Your task to perform on an android device: toggle improve location accuracy Image 0: 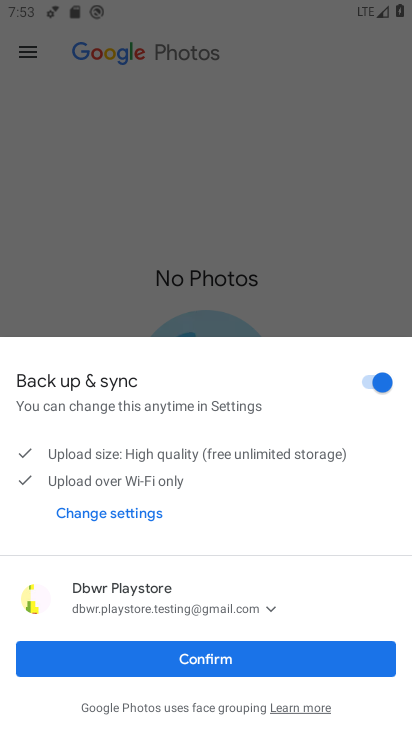
Step 0: press home button
Your task to perform on an android device: toggle improve location accuracy Image 1: 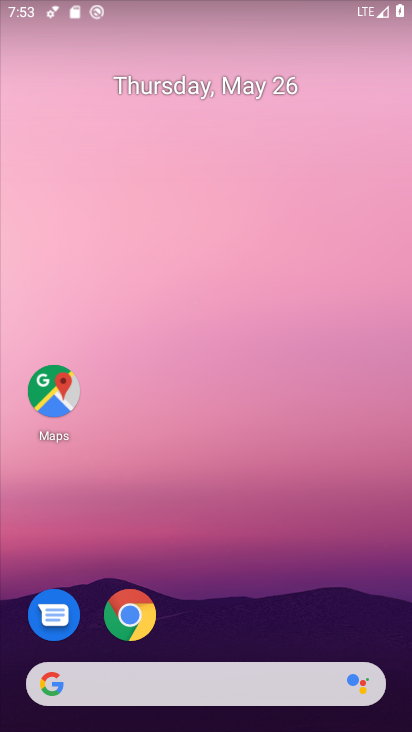
Step 1: drag from (228, 636) to (250, 310)
Your task to perform on an android device: toggle improve location accuracy Image 2: 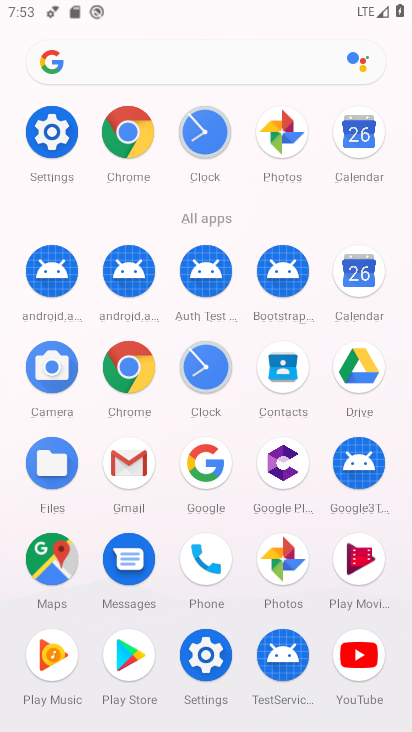
Step 2: click (46, 124)
Your task to perform on an android device: toggle improve location accuracy Image 3: 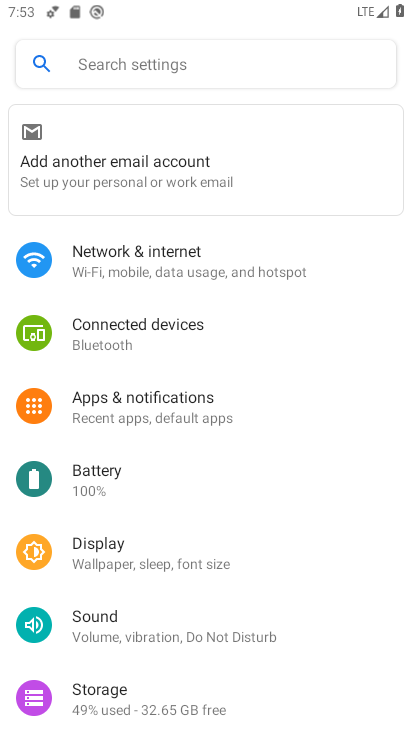
Step 3: drag from (199, 598) to (237, 263)
Your task to perform on an android device: toggle improve location accuracy Image 4: 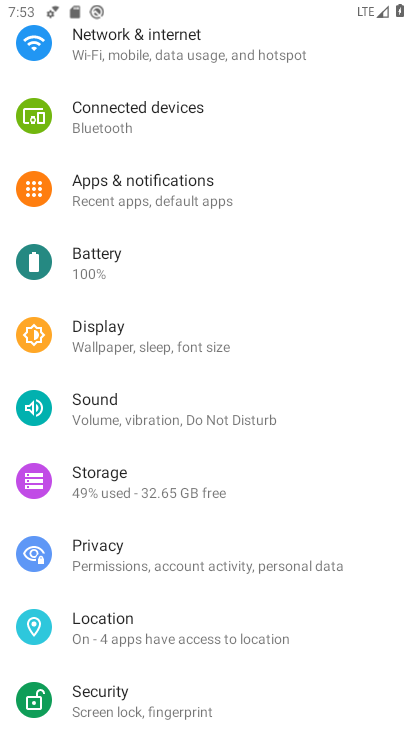
Step 4: click (151, 617)
Your task to perform on an android device: toggle improve location accuracy Image 5: 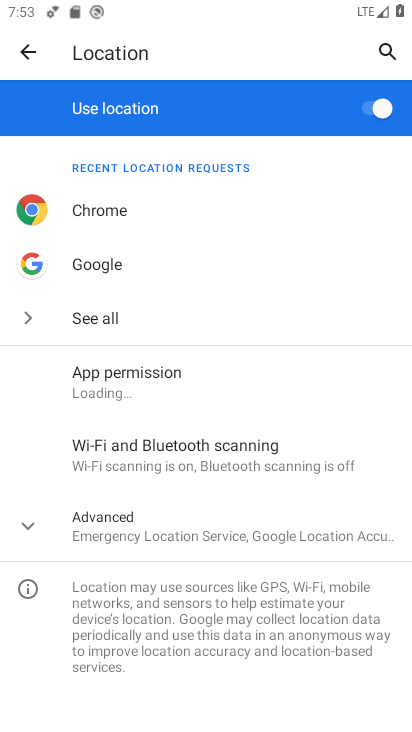
Step 5: click (122, 537)
Your task to perform on an android device: toggle improve location accuracy Image 6: 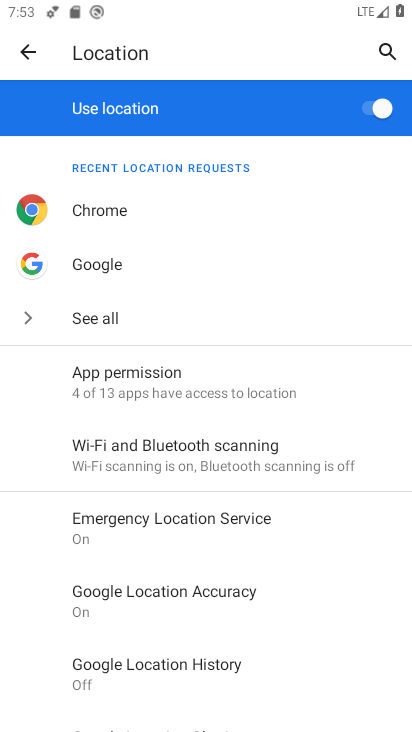
Step 6: click (238, 598)
Your task to perform on an android device: toggle improve location accuracy Image 7: 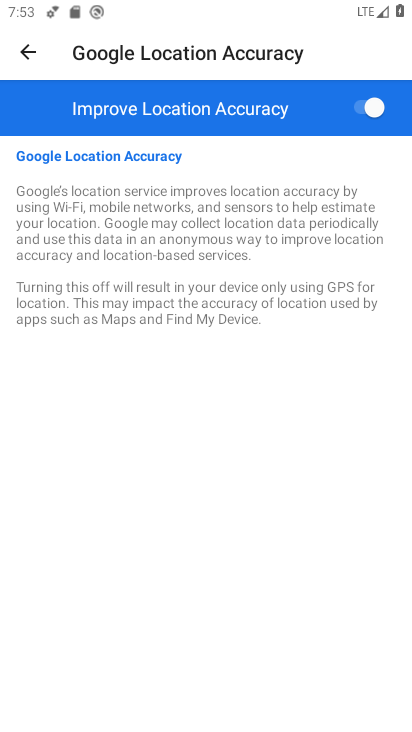
Step 7: task complete